Your task to perform on an android device: Do I have any events this weekend? Image 0: 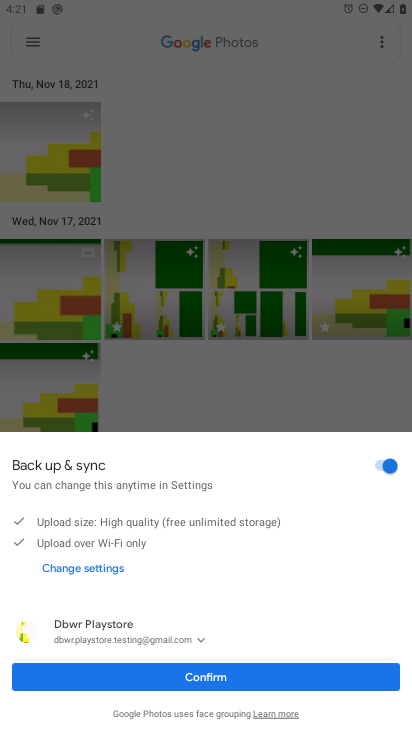
Step 0: press home button
Your task to perform on an android device: Do I have any events this weekend? Image 1: 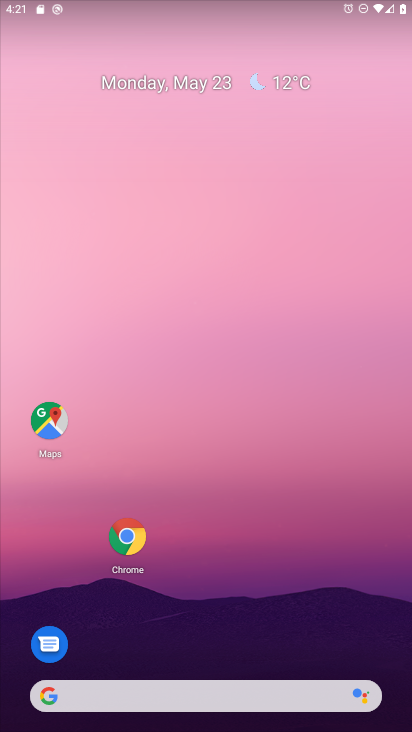
Step 1: drag from (283, 628) to (256, 68)
Your task to perform on an android device: Do I have any events this weekend? Image 2: 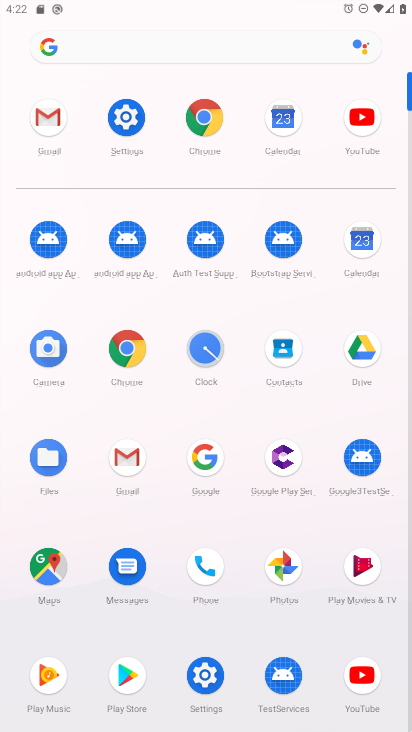
Step 2: click (362, 241)
Your task to perform on an android device: Do I have any events this weekend? Image 3: 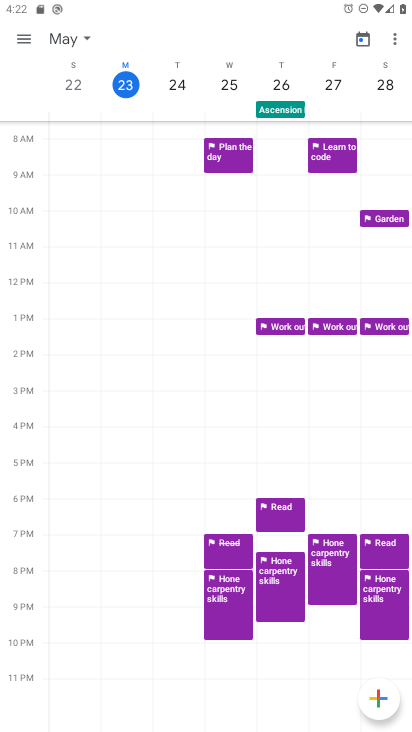
Step 3: drag from (386, 77) to (96, 55)
Your task to perform on an android device: Do I have any events this weekend? Image 4: 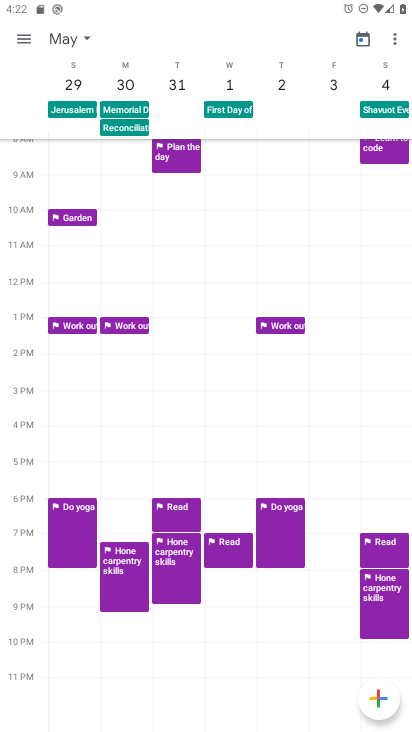
Step 4: click (32, 44)
Your task to perform on an android device: Do I have any events this weekend? Image 5: 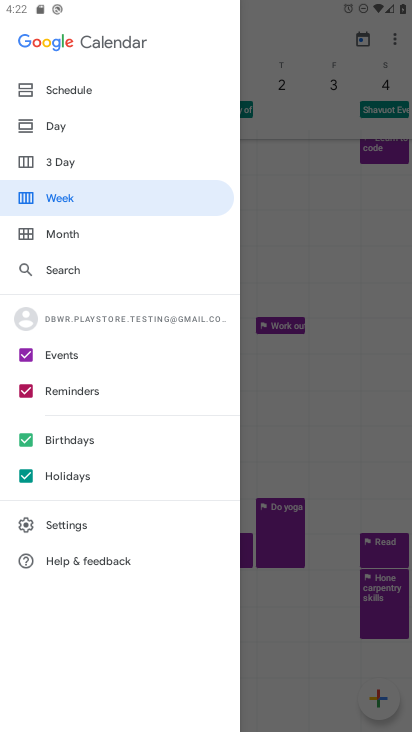
Step 5: click (61, 168)
Your task to perform on an android device: Do I have any events this weekend? Image 6: 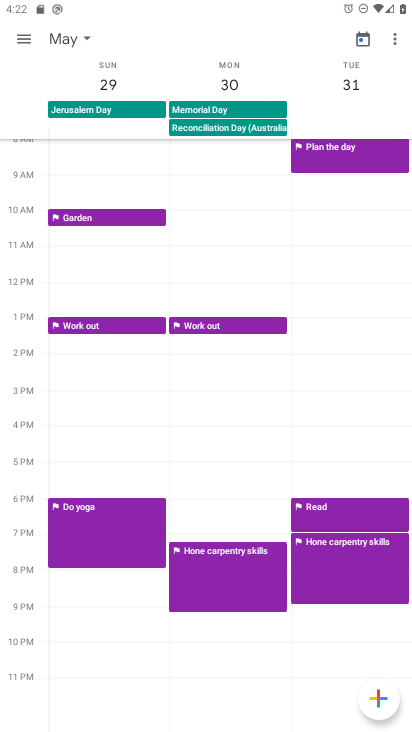
Step 6: task complete